Your task to perform on an android device: turn off airplane mode Image 0: 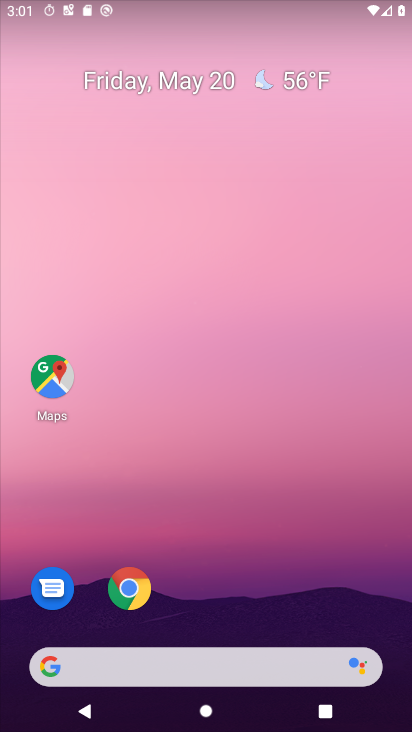
Step 0: drag from (372, 23) to (323, 319)
Your task to perform on an android device: turn off airplane mode Image 1: 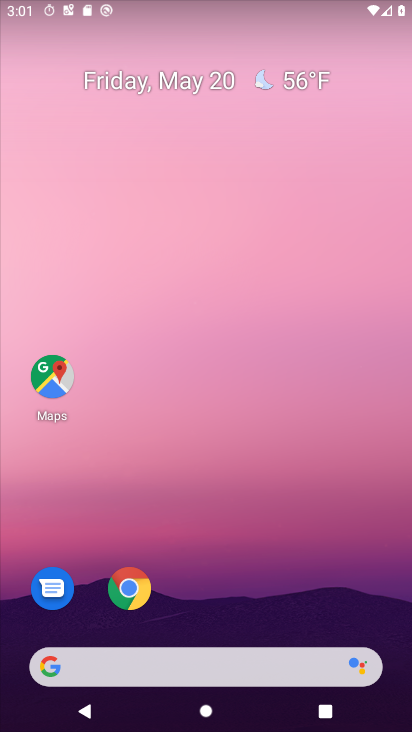
Step 1: task complete